Your task to perform on an android device: Search for sushi restaurants on Maps Image 0: 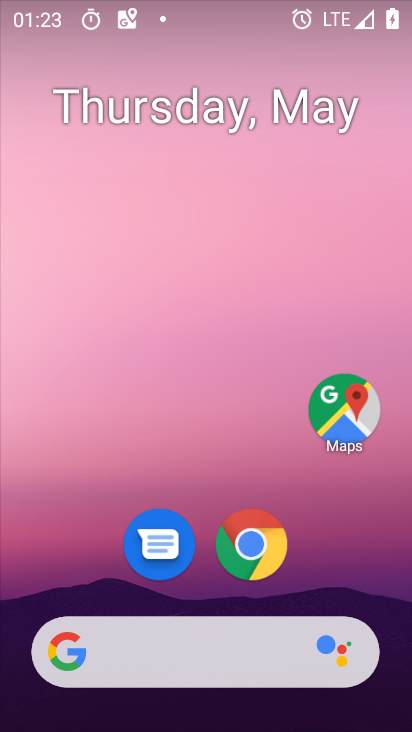
Step 0: drag from (375, 539) to (356, 100)
Your task to perform on an android device: Search for sushi restaurants on Maps Image 1: 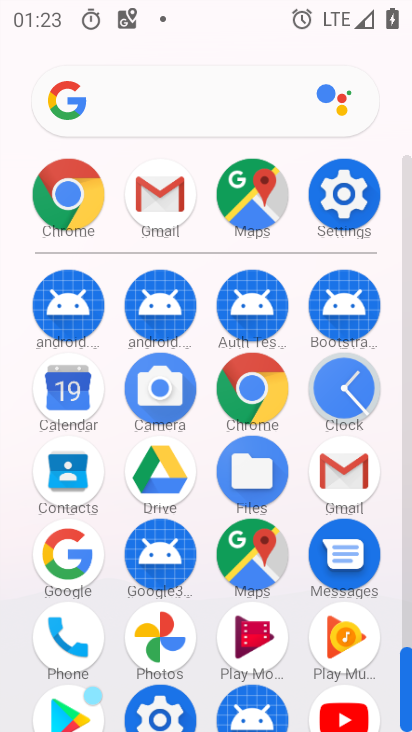
Step 1: click (251, 557)
Your task to perform on an android device: Search for sushi restaurants on Maps Image 2: 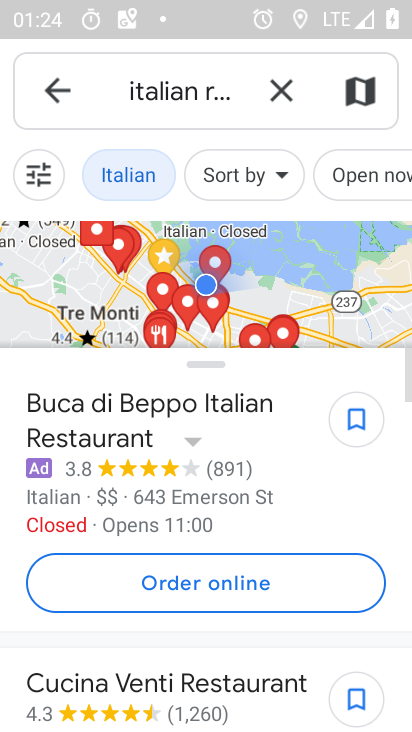
Step 2: click (278, 87)
Your task to perform on an android device: Search for sushi restaurants on Maps Image 3: 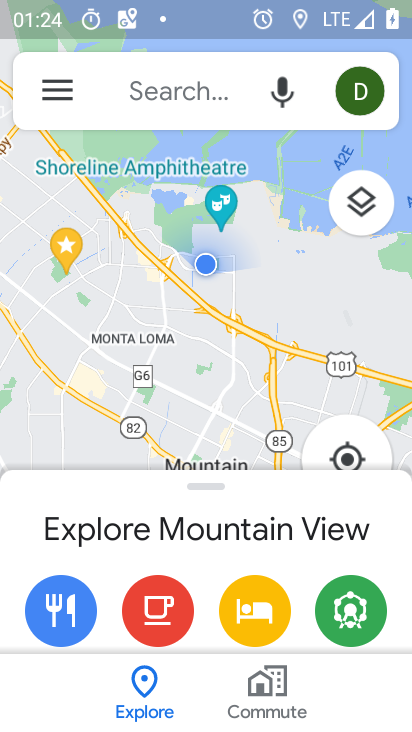
Step 3: click (98, 91)
Your task to perform on an android device: Search for sushi restaurants on Maps Image 4: 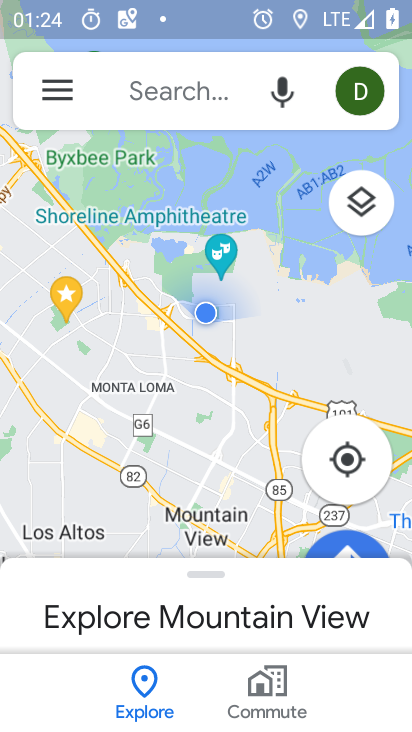
Step 4: type "sushi restaurants"
Your task to perform on an android device: Search for sushi restaurants on Maps Image 5: 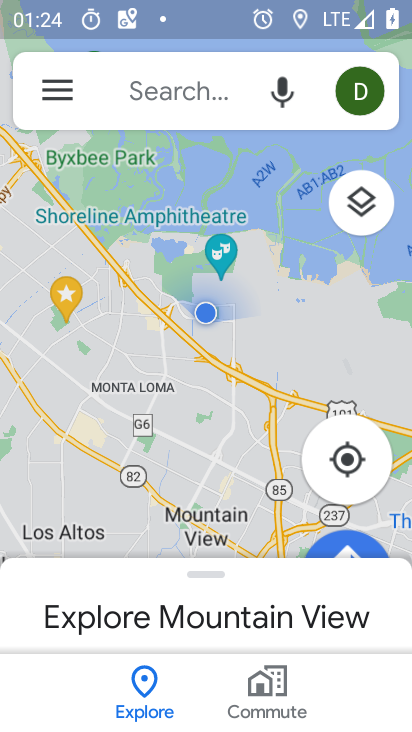
Step 5: click (158, 87)
Your task to perform on an android device: Search for sushi restaurants on Maps Image 6: 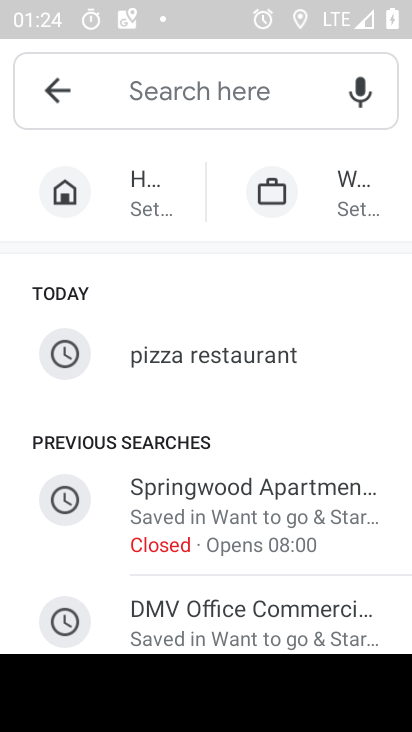
Step 6: type "sushi restaurants"
Your task to perform on an android device: Search for sushi restaurants on Maps Image 7: 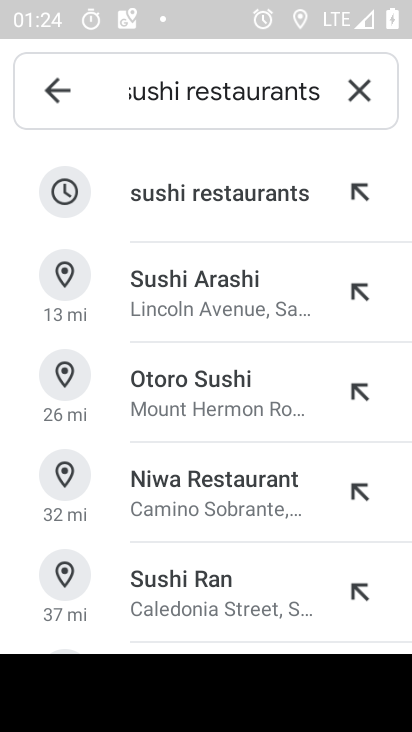
Step 7: click (244, 231)
Your task to perform on an android device: Search for sushi restaurants on Maps Image 8: 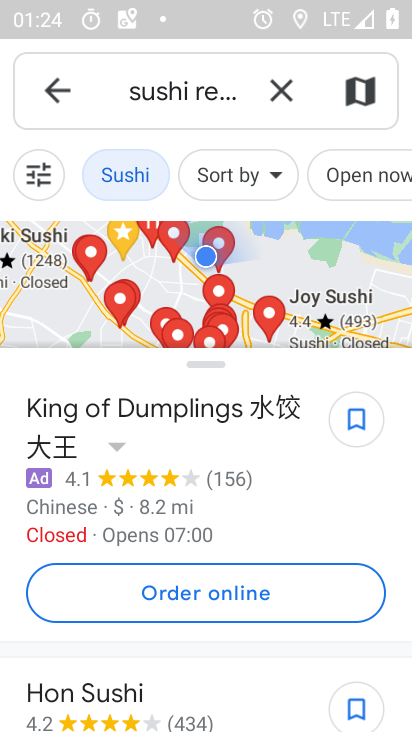
Step 8: task complete